Your task to perform on an android device: Open the web browser Image 0: 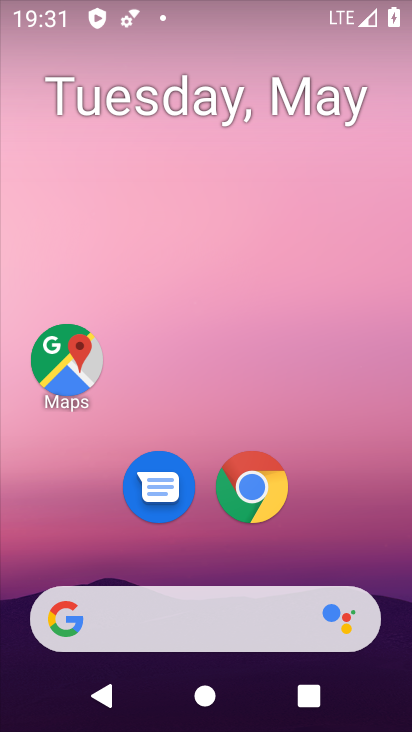
Step 0: click (259, 480)
Your task to perform on an android device: Open the web browser Image 1: 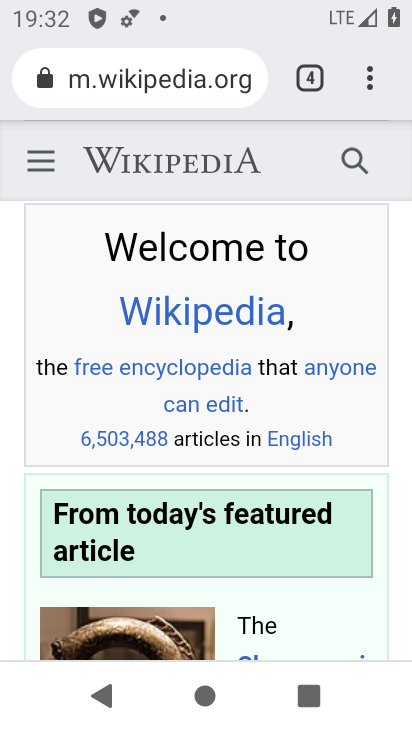
Step 1: task complete